Your task to perform on an android device: Open Youtube and go to "Your channel" Image 0: 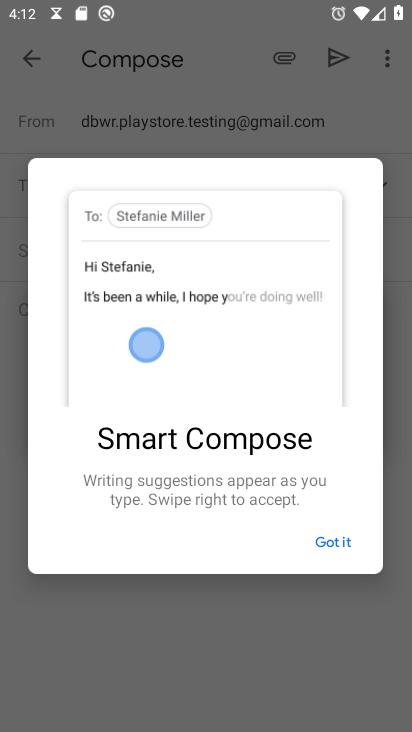
Step 0: press home button
Your task to perform on an android device: Open Youtube and go to "Your channel" Image 1: 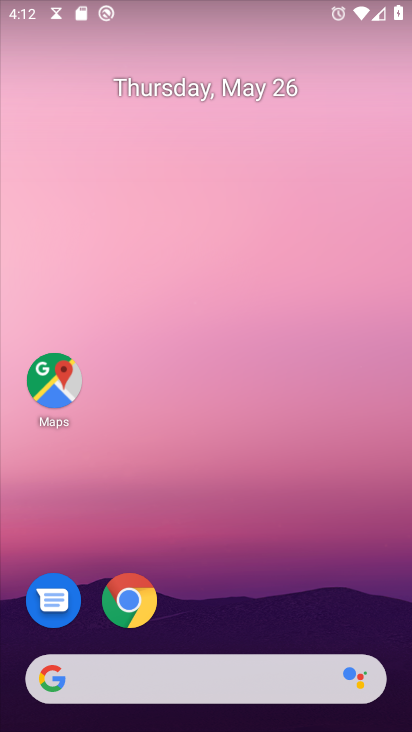
Step 1: drag from (225, 640) to (280, 24)
Your task to perform on an android device: Open Youtube and go to "Your channel" Image 2: 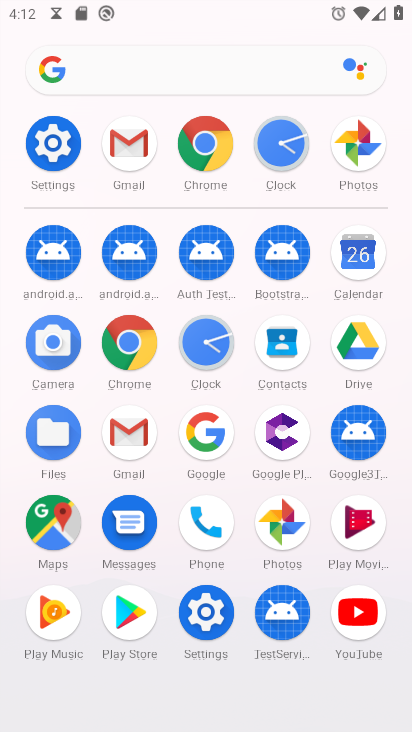
Step 2: click (368, 634)
Your task to perform on an android device: Open Youtube and go to "Your channel" Image 3: 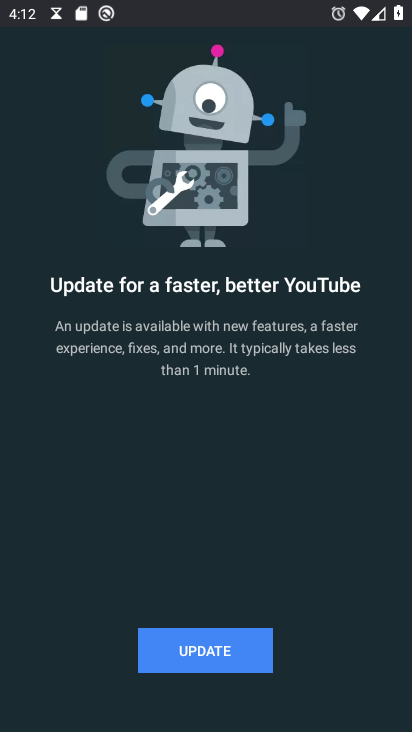
Step 3: click (238, 640)
Your task to perform on an android device: Open Youtube and go to "Your channel" Image 4: 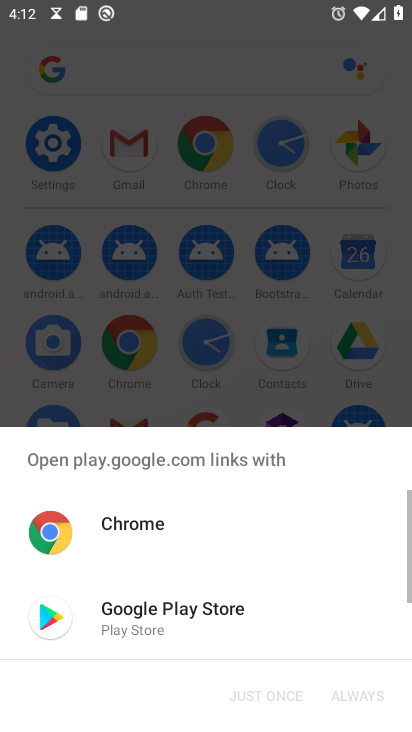
Step 4: click (180, 625)
Your task to perform on an android device: Open Youtube and go to "Your channel" Image 5: 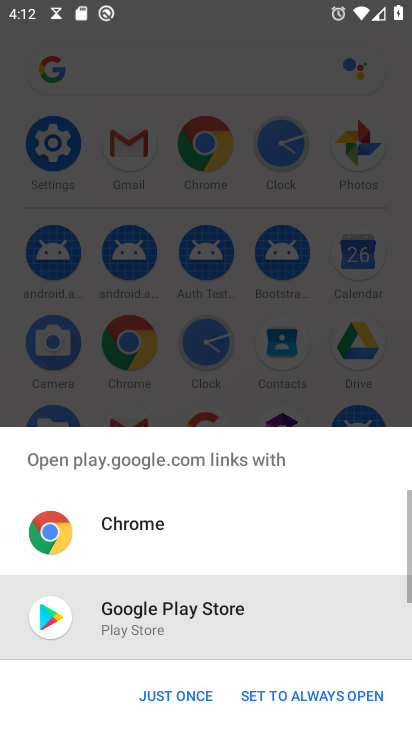
Step 5: click (165, 696)
Your task to perform on an android device: Open Youtube and go to "Your channel" Image 6: 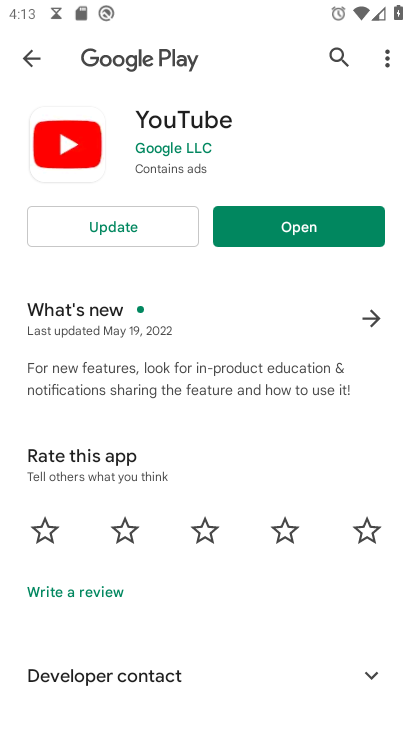
Step 6: click (86, 224)
Your task to perform on an android device: Open Youtube and go to "Your channel" Image 7: 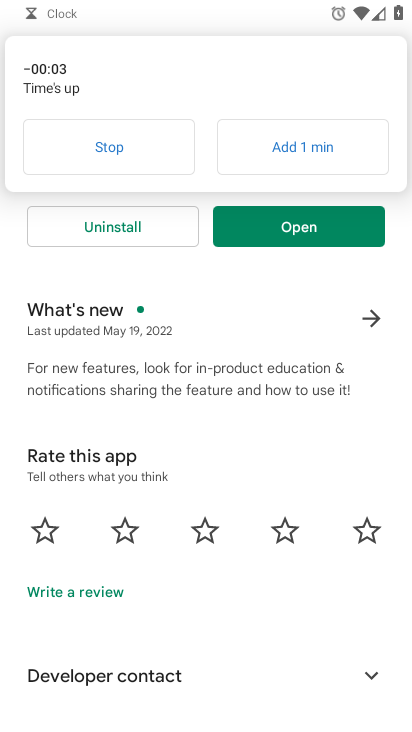
Step 7: click (107, 151)
Your task to perform on an android device: Open Youtube and go to "Your channel" Image 8: 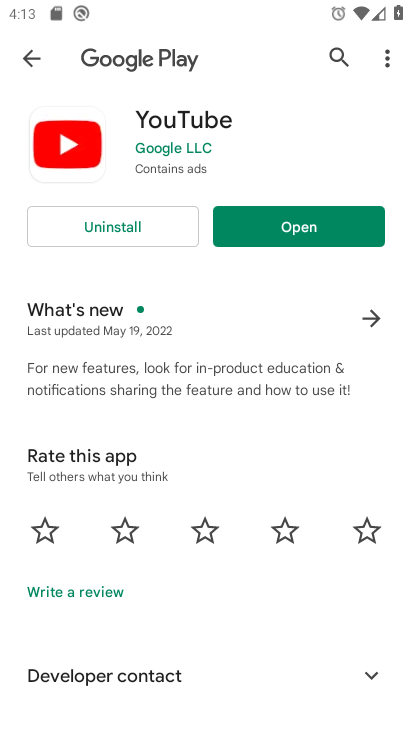
Step 8: click (292, 236)
Your task to perform on an android device: Open Youtube and go to "Your channel" Image 9: 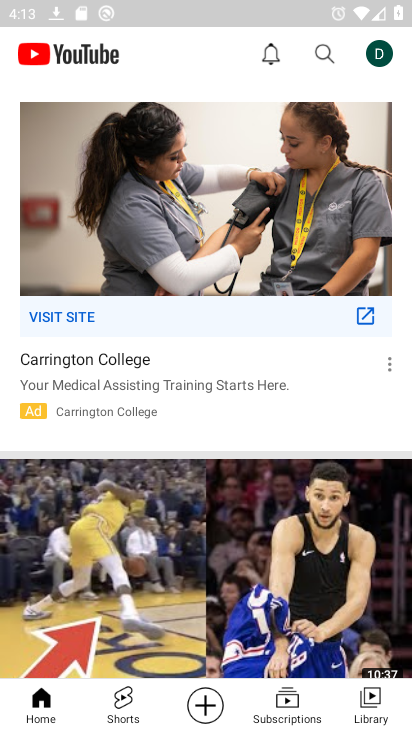
Step 9: click (384, 61)
Your task to perform on an android device: Open Youtube and go to "Your channel" Image 10: 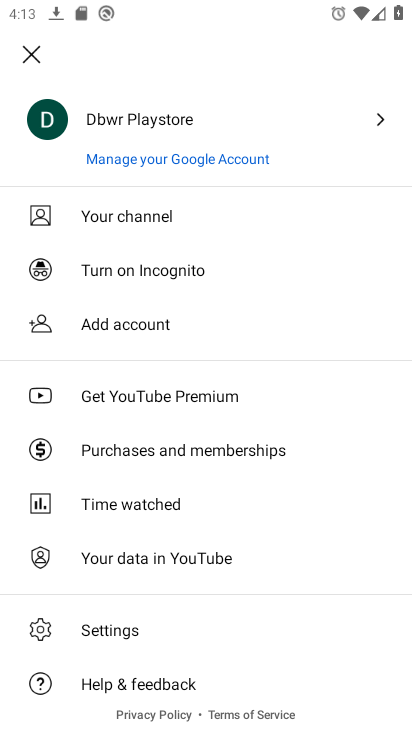
Step 10: click (147, 215)
Your task to perform on an android device: Open Youtube and go to "Your channel" Image 11: 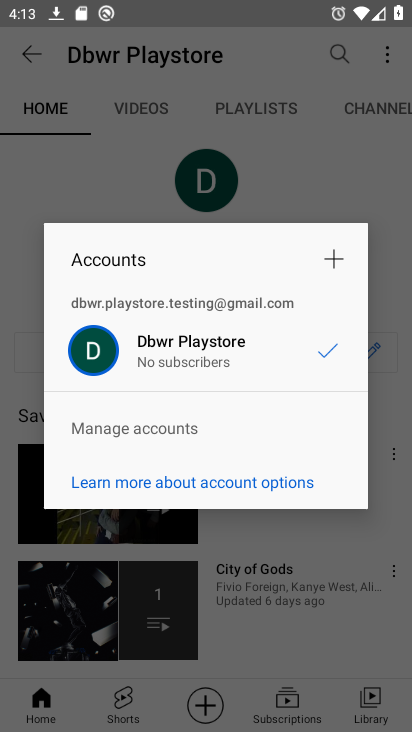
Step 11: click (192, 350)
Your task to perform on an android device: Open Youtube and go to "Your channel" Image 12: 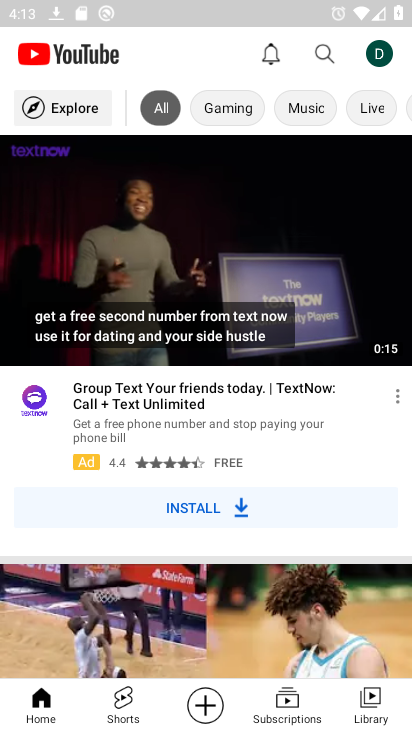
Step 12: click (386, 58)
Your task to perform on an android device: Open Youtube and go to "Your channel" Image 13: 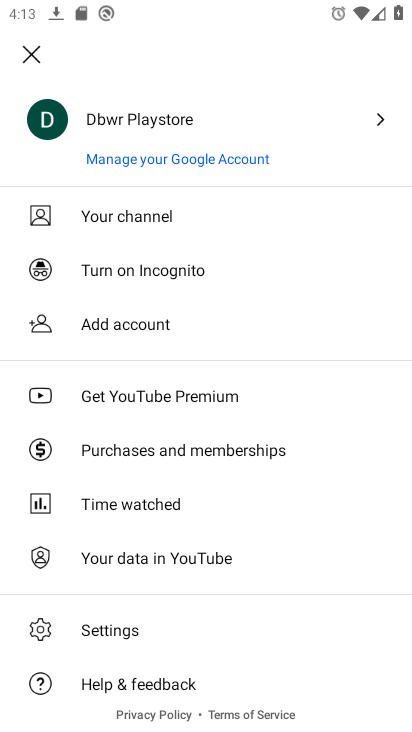
Step 13: click (133, 224)
Your task to perform on an android device: Open Youtube and go to "Your channel" Image 14: 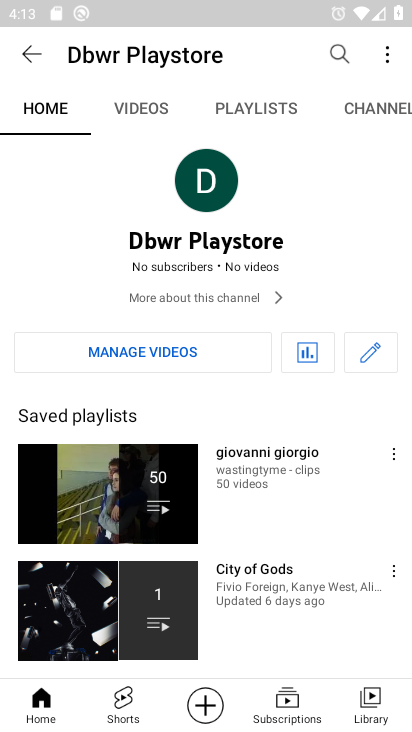
Step 14: task complete